Your task to perform on an android device: Clear the cart on walmart. Search for lenovo thinkpad on walmart, select the first entry, add it to the cart, then select checkout. Image 0: 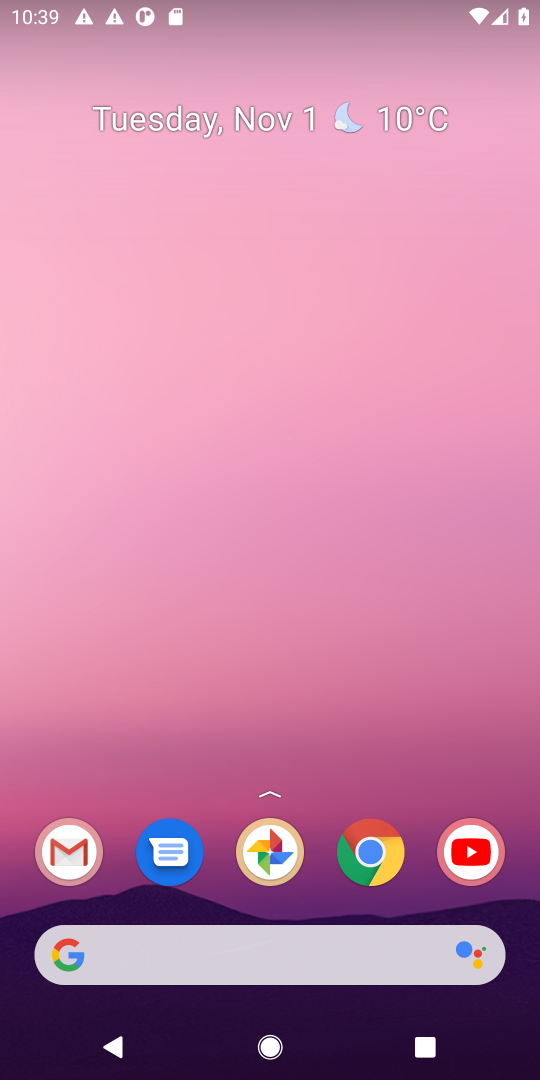
Step 0: press home button
Your task to perform on an android device: Clear the cart on walmart. Search for lenovo thinkpad on walmart, select the first entry, add it to the cart, then select checkout. Image 1: 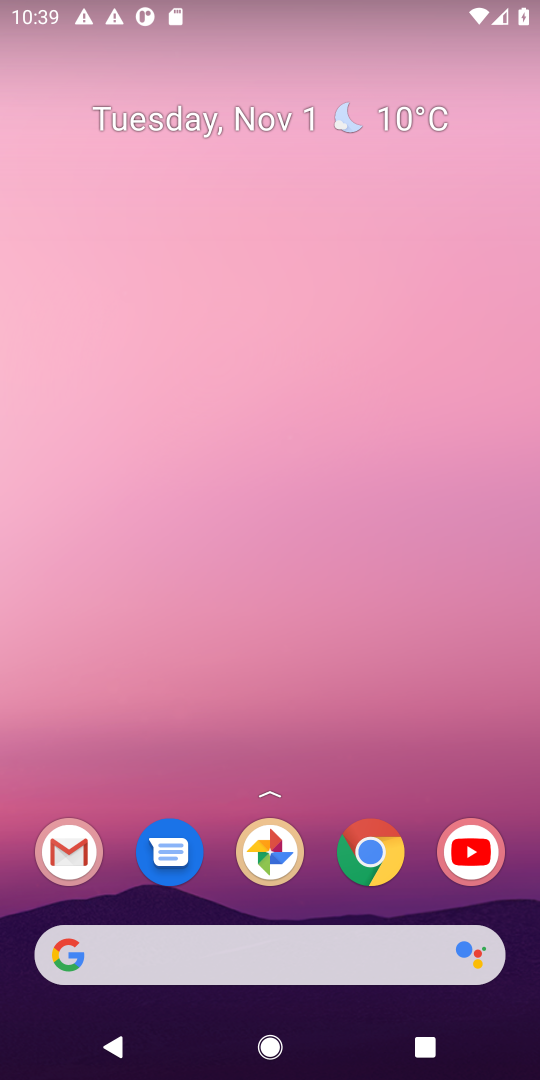
Step 1: click (57, 964)
Your task to perform on an android device: Clear the cart on walmart. Search for lenovo thinkpad on walmart, select the first entry, add it to the cart, then select checkout. Image 2: 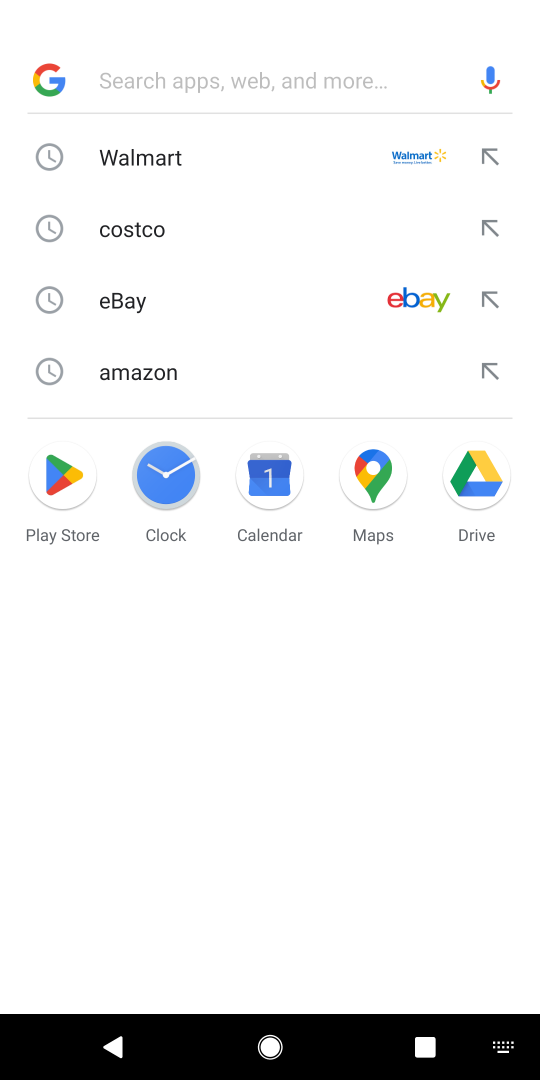
Step 2: click (139, 163)
Your task to perform on an android device: Clear the cart on walmart. Search for lenovo thinkpad on walmart, select the first entry, add it to the cart, then select checkout. Image 3: 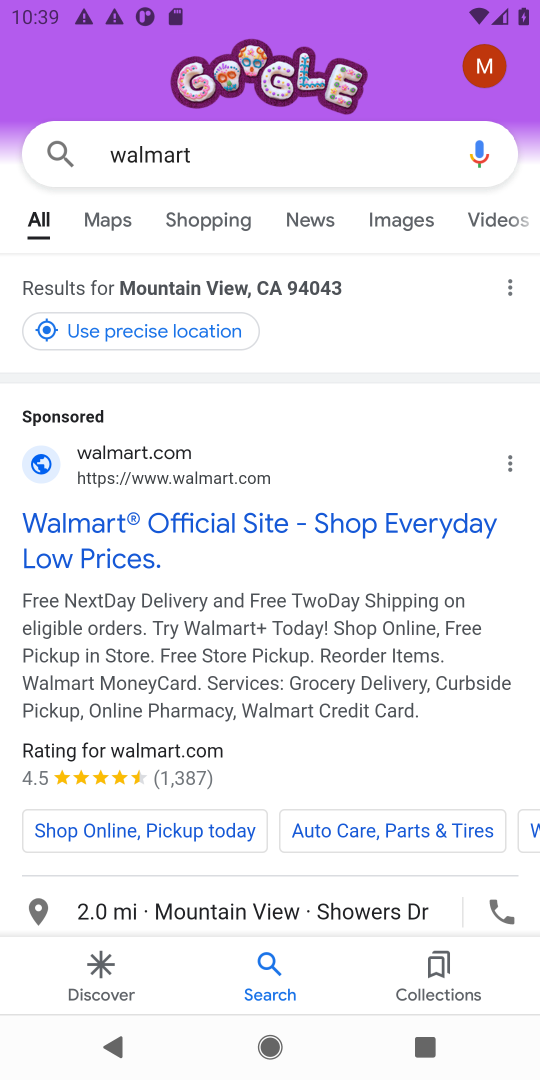
Step 3: drag from (215, 878) to (206, 538)
Your task to perform on an android device: Clear the cart on walmart. Search for lenovo thinkpad on walmart, select the first entry, add it to the cart, then select checkout. Image 4: 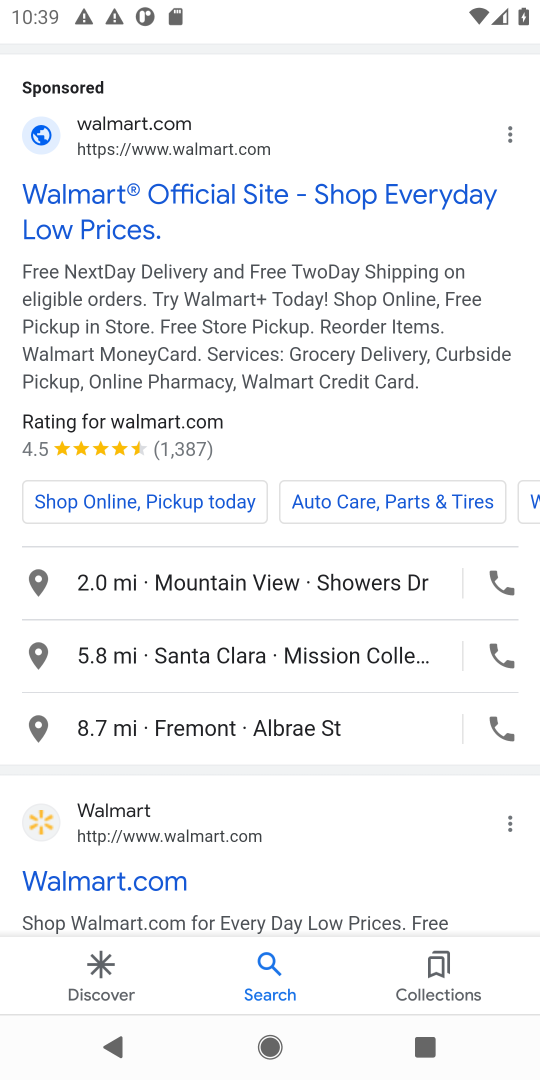
Step 4: click (117, 876)
Your task to perform on an android device: Clear the cart on walmart. Search for lenovo thinkpad on walmart, select the first entry, add it to the cart, then select checkout. Image 5: 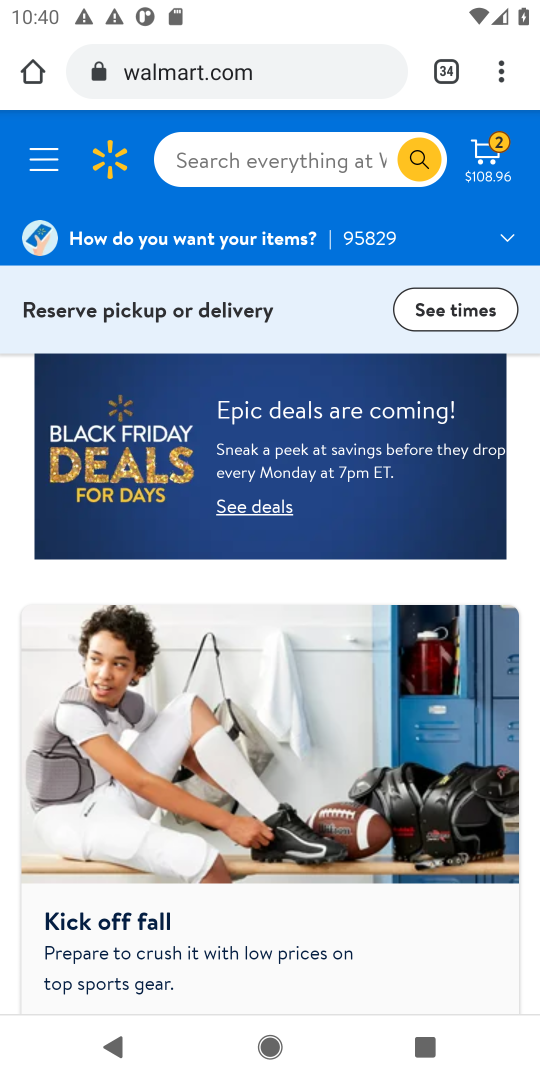
Step 5: click (488, 160)
Your task to perform on an android device: Clear the cart on walmart. Search for lenovo thinkpad on walmart, select the first entry, add it to the cart, then select checkout. Image 6: 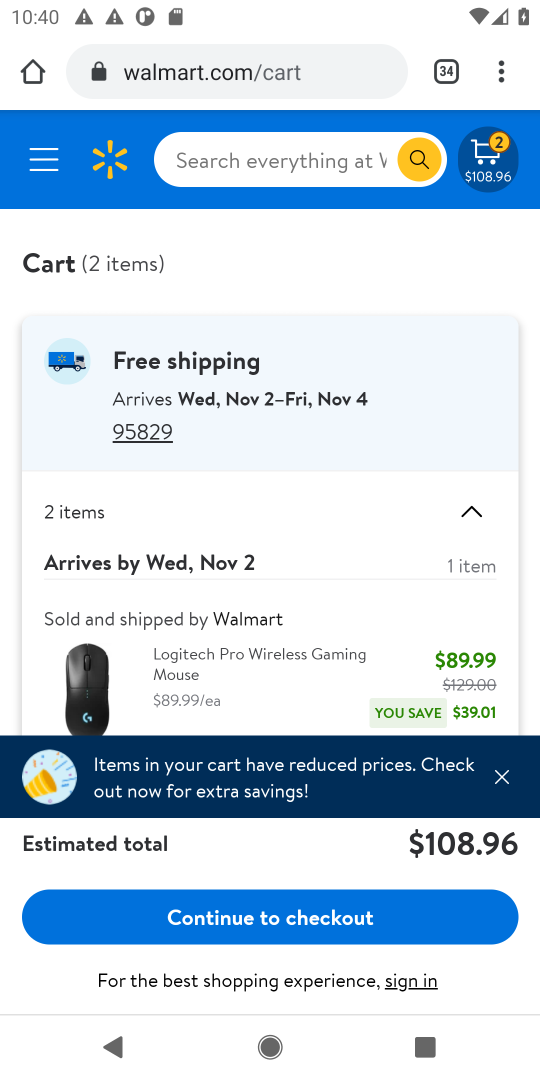
Step 6: click (497, 785)
Your task to perform on an android device: Clear the cart on walmart. Search for lenovo thinkpad on walmart, select the first entry, add it to the cart, then select checkout. Image 7: 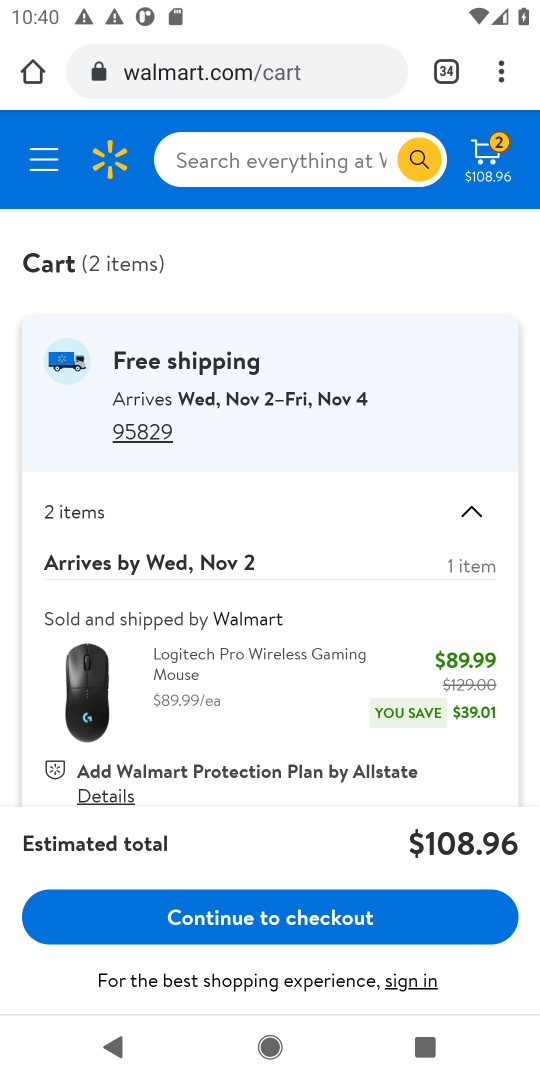
Step 7: drag from (321, 793) to (277, 543)
Your task to perform on an android device: Clear the cart on walmart. Search for lenovo thinkpad on walmart, select the first entry, add it to the cart, then select checkout. Image 8: 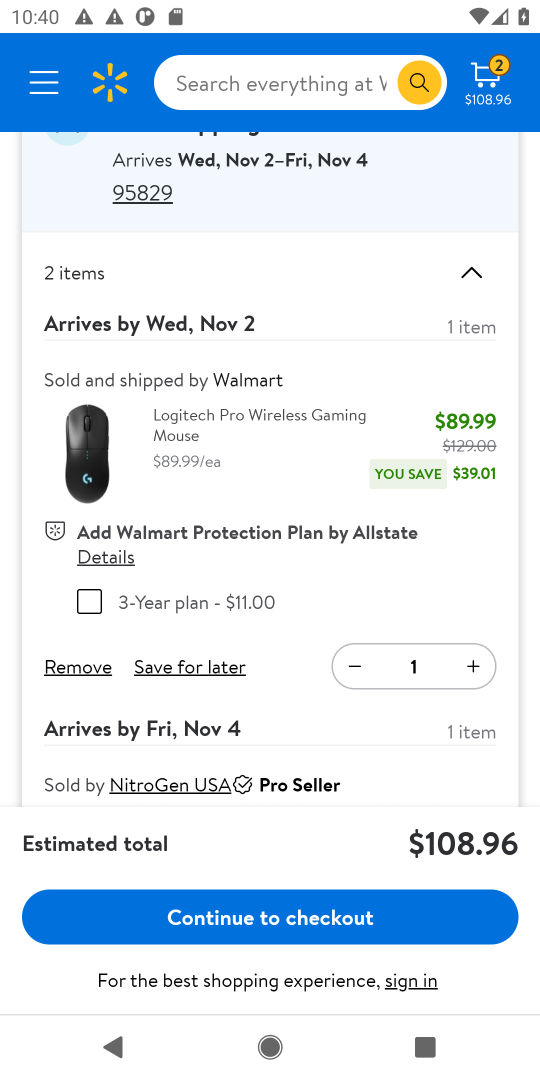
Step 8: click (74, 665)
Your task to perform on an android device: Clear the cart on walmart. Search for lenovo thinkpad on walmart, select the first entry, add it to the cart, then select checkout. Image 9: 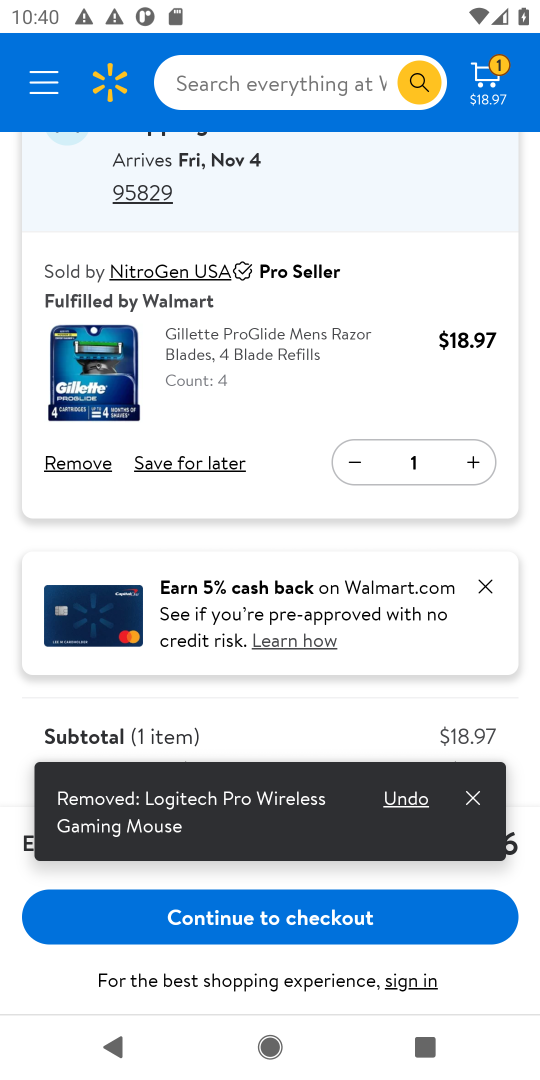
Step 9: click (82, 508)
Your task to perform on an android device: Clear the cart on walmart. Search for lenovo thinkpad on walmart, select the first entry, add it to the cart, then select checkout. Image 10: 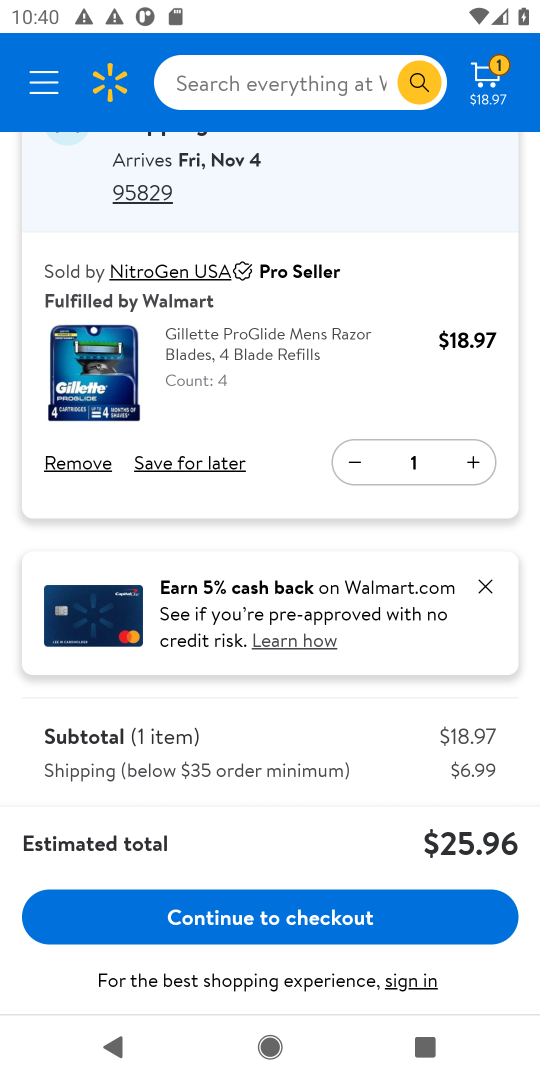
Step 10: click (75, 464)
Your task to perform on an android device: Clear the cart on walmart. Search for lenovo thinkpad on walmart, select the first entry, add it to the cart, then select checkout. Image 11: 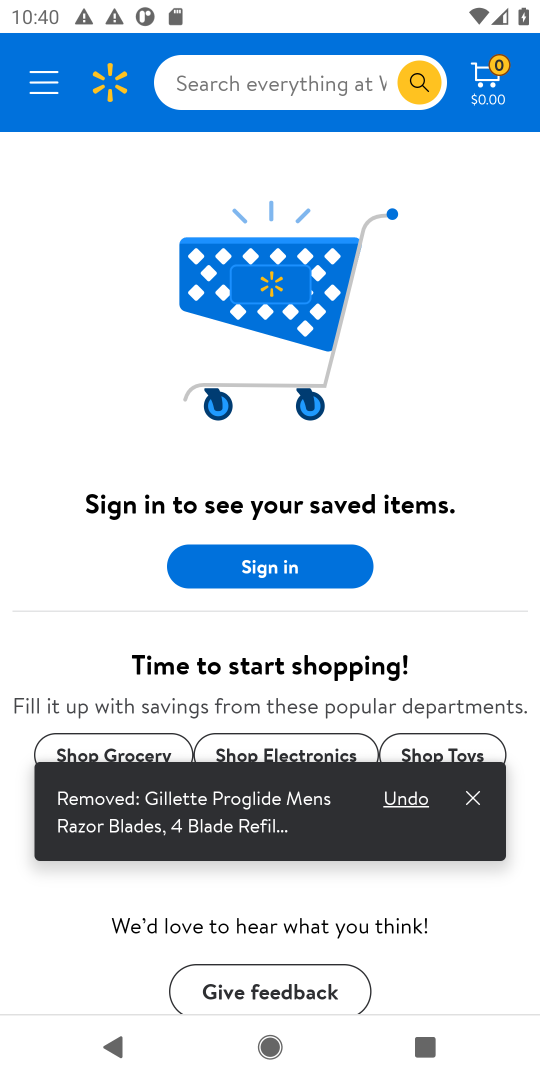
Step 11: click (273, 84)
Your task to perform on an android device: Clear the cart on walmart. Search for lenovo thinkpad on walmart, select the first entry, add it to the cart, then select checkout. Image 12: 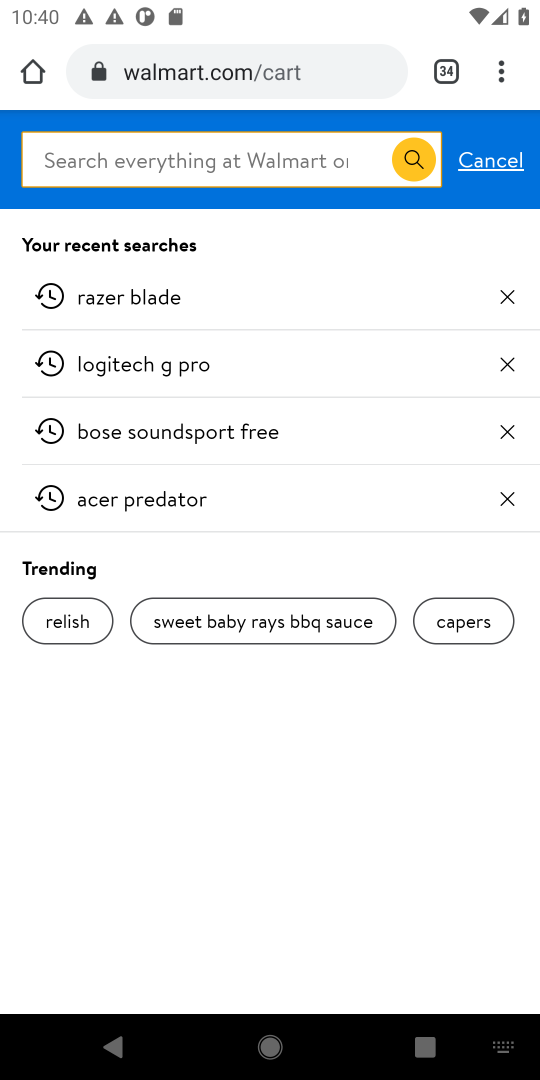
Step 12: type "lenovo thinkpad"
Your task to perform on an android device: Clear the cart on walmart. Search for lenovo thinkpad on walmart, select the first entry, add it to the cart, then select checkout. Image 13: 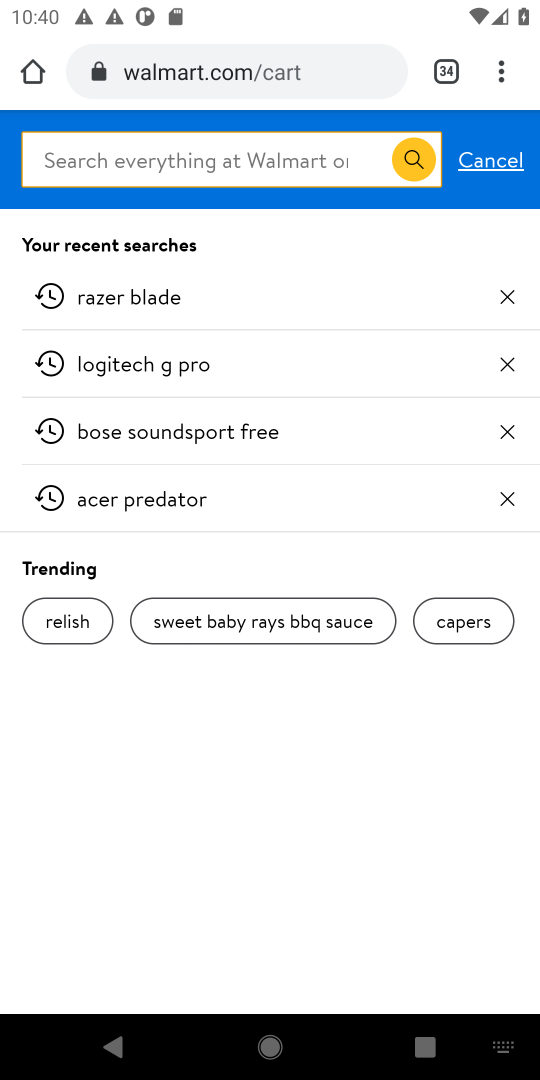
Step 13: click (68, 155)
Your task to perform on an android device: Clear the cart on walmart. Search for lenovo thinkpad on walmart, select the first entry, add it to the cart, then select checkout. Image 14: 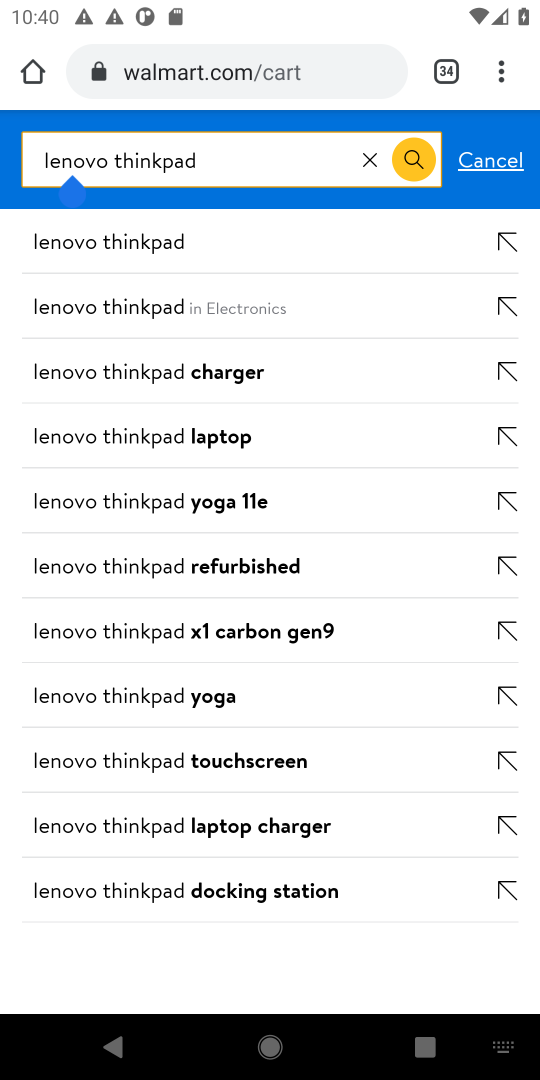
Step 14: press enter
Your task to perform on an android device: Clear the cart on walmart. Search for lenovo thinkpad on walmart, select the first entry, add it to the cart, then select checkout. Image 15: 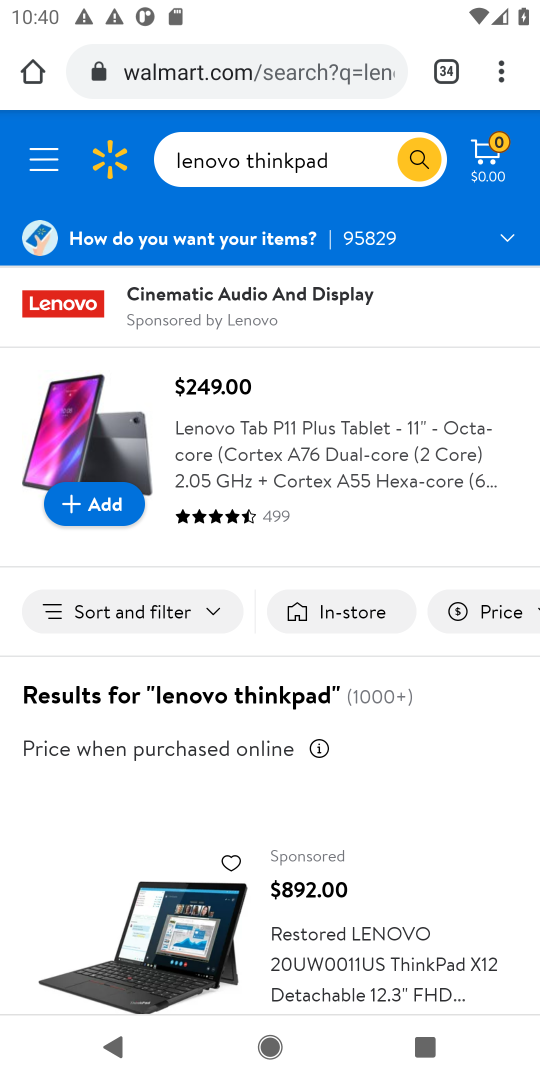
Step 15: drag from (482, 864) to (403, 506)
Your task to perform on an android device: Clear the cart on walmart. Search for lenovo thinkpad on walmart, select the first entry, add it to the cart, then select checkout. Image 16: 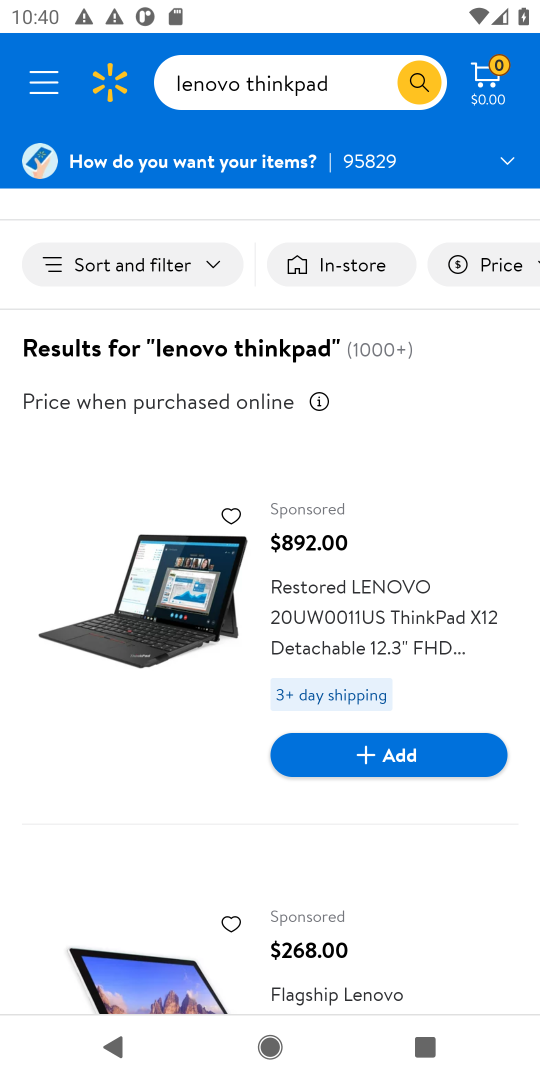
Step 16: click (408, 762)
Your task to perform on an android device: Clear the cart on walmart. Search for lenovo thinkpad on walmart, select the first entry, add it to the cart, then select checkout. Image 17: 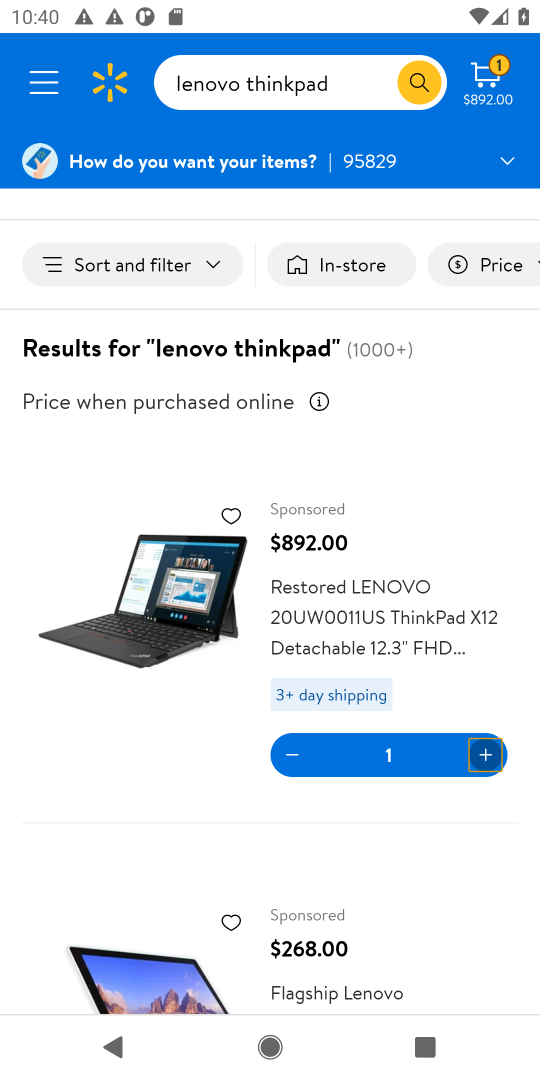
Step 17: click (487, 71)
Your task to perform on an android device: Clear the cart on walmart. Search for lenovo thinkpad on walmart, select the first entry, add it to the cart, then select checkout. Image 18: 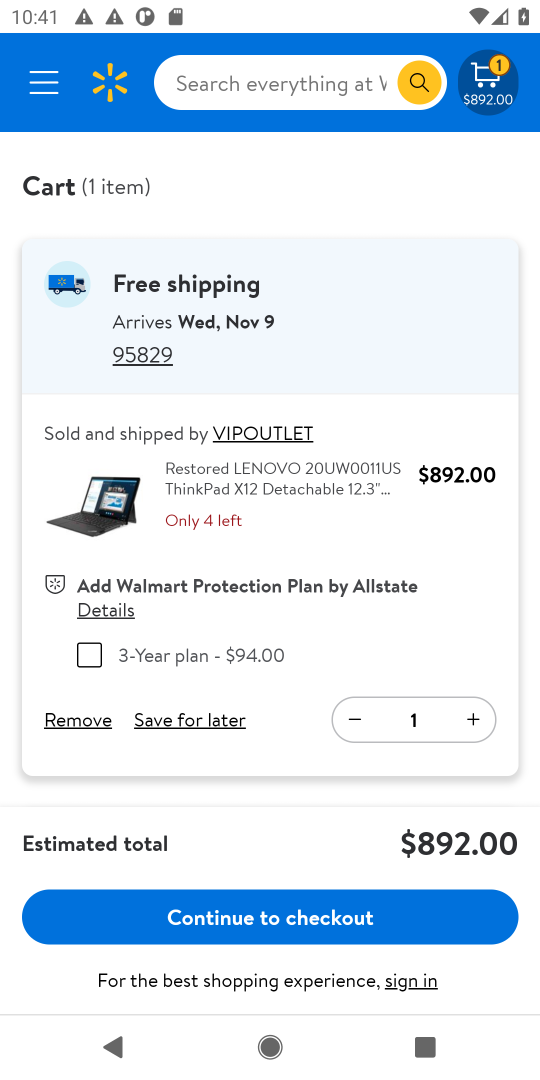
Step 18: click (226, 921)
Your task to perform on an android device: Clear the cart on walmart. Search for lenovo thinkpad on walmart, select the first entry, add it to the cart, then select checkout. Image 19: 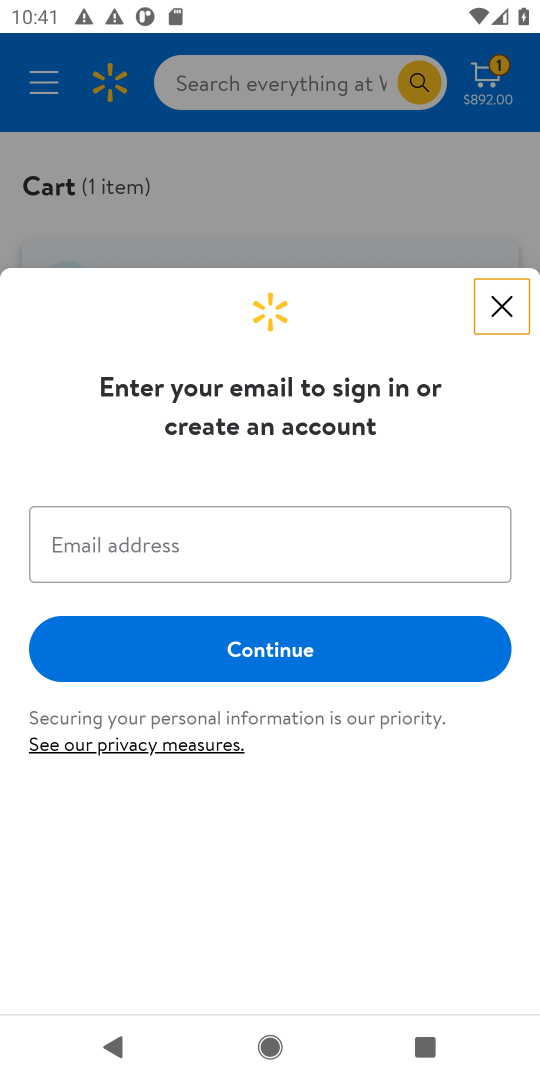
Step 19: task complete